Your task to perform on an android device: Go to internet settings Image 0: 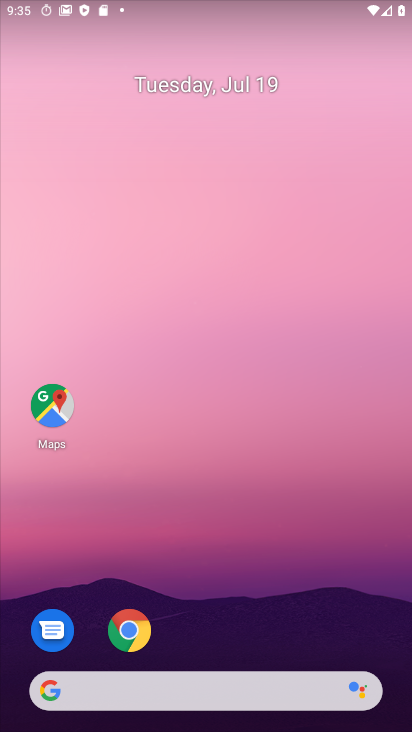
Step 0: drag from (211, 665) to (161, 367)
Your task to perform on an android device: Go to internet settings Image 1: 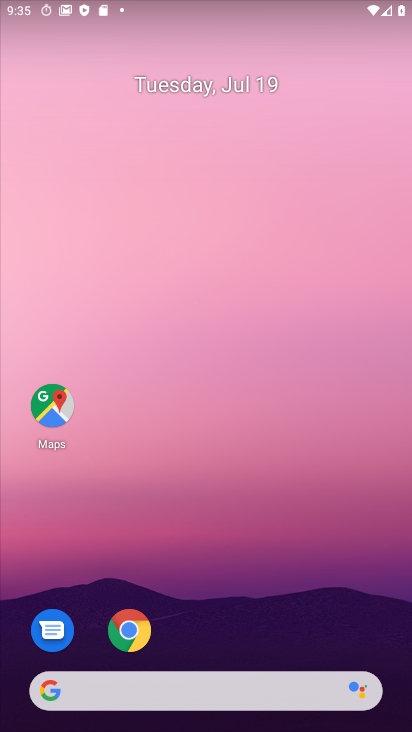
Step 1: drag from (213, 639) to (293, 12)
Your task to perform on an android device: Go to internet settings Image 2: 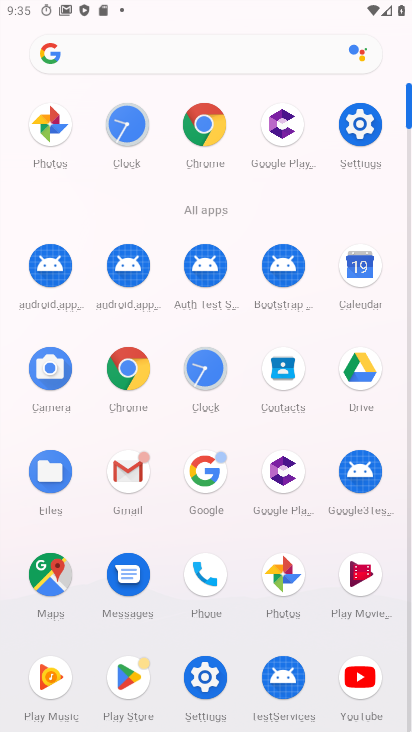
Step 2: click (359, 127)
Your task to perform on an android device: Go to internet settings Image 3: 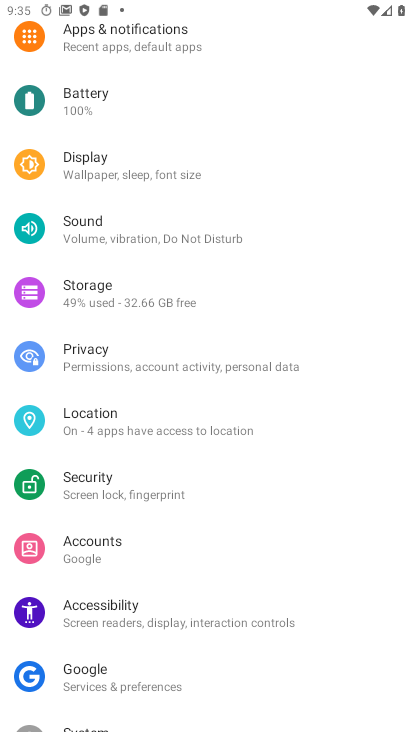
Step 3: drag from (259, 98) to (238, 416)
Your task to perform on an android device: Go to internet settings Image 4: 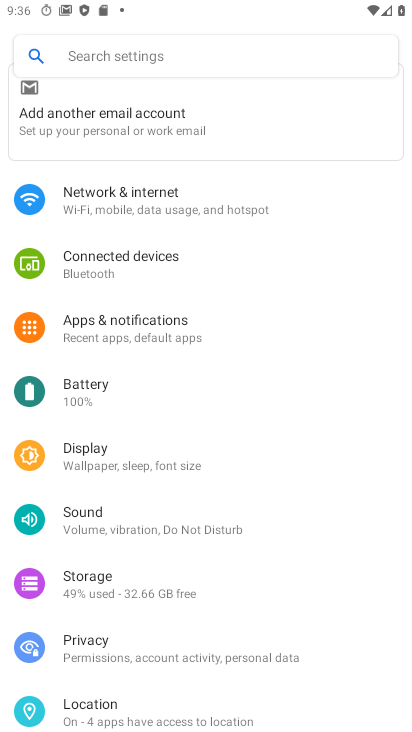
Step 4: click (137, 181)
Your task to perform on an android device: Go to internet settings Image 5: 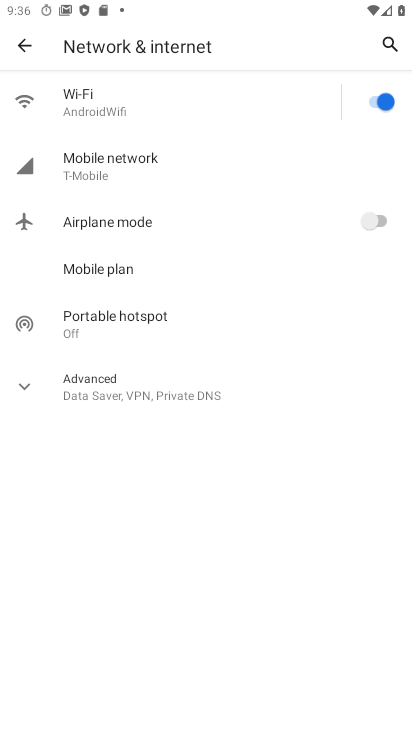
Step 5: click (125, 169)
Your task to perform on an android device: Go to internet settings Image 6: 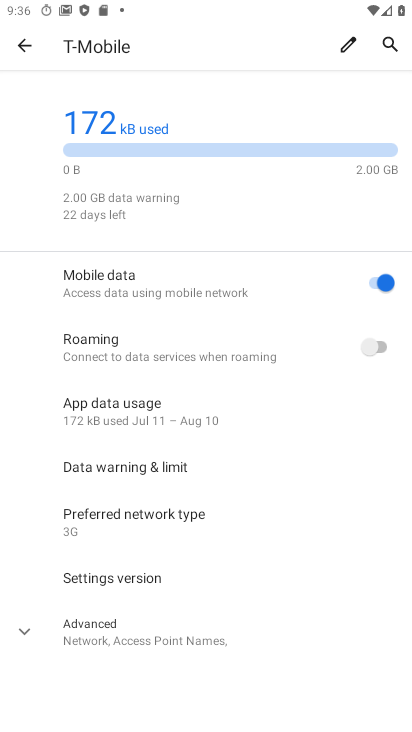
Step 6: task complete